Your task to perform on an android device: When is my next meeting? Image 0: 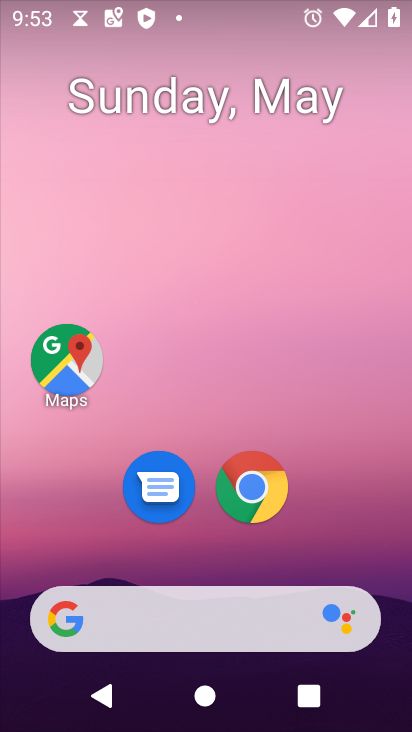
Step 0: drag from (353, 496) to (379, 2)
Your task to perform on an android device: When is my next meeting? Image 1: 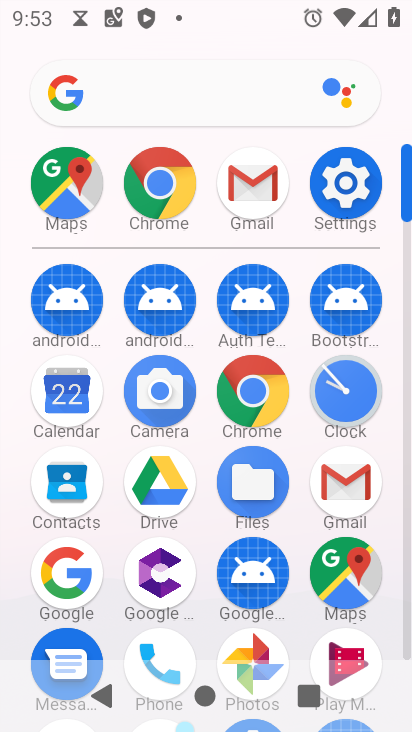
Step 1: click (49, 415)
Your task to perform on an android device: When is my next meeting? Image 2: 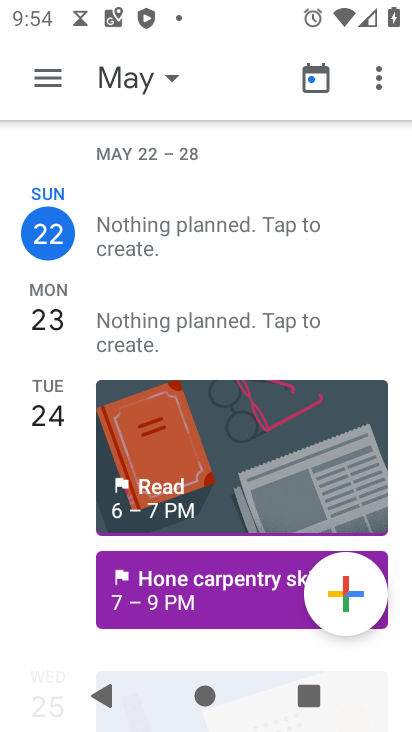
Step 2: click (173, 87)
Your task to perform on an android device: When is my next meeting? Image 3: 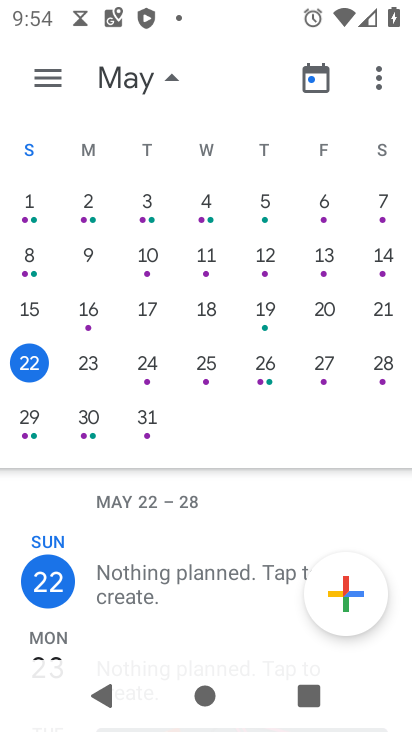
Step 3: task complete